Your task to perform on an android device: change keyboard looks Image 0: 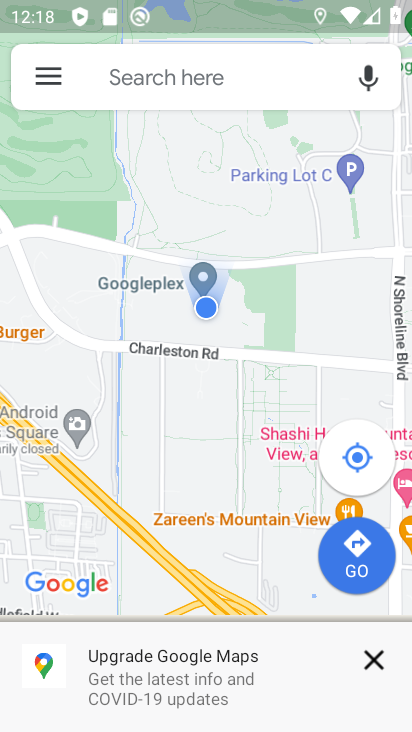
Step 0: press home button
Your task to perform on an android device: change keyboard looks Image 1: 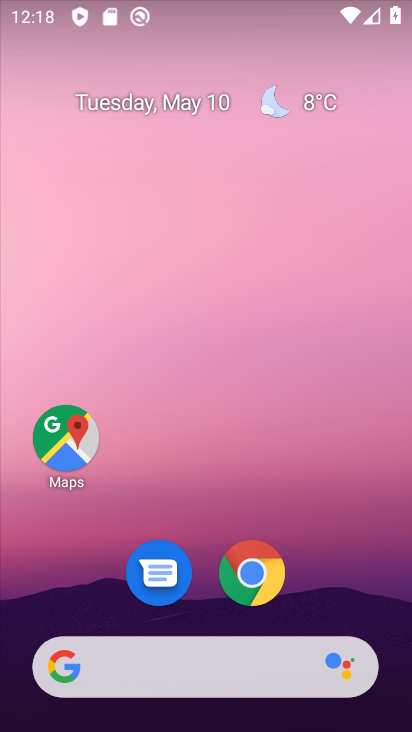
Step 1: drag from (197, 570) to (255, 133)
Your task to perform on an android device: change keyboard looks Image 2: 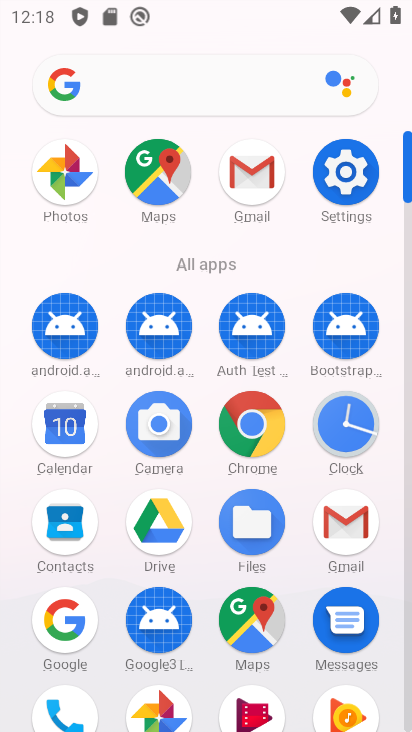
Step 2: click (358, 192)
Your task to perform on an android device: change keyboard looks Image 3: 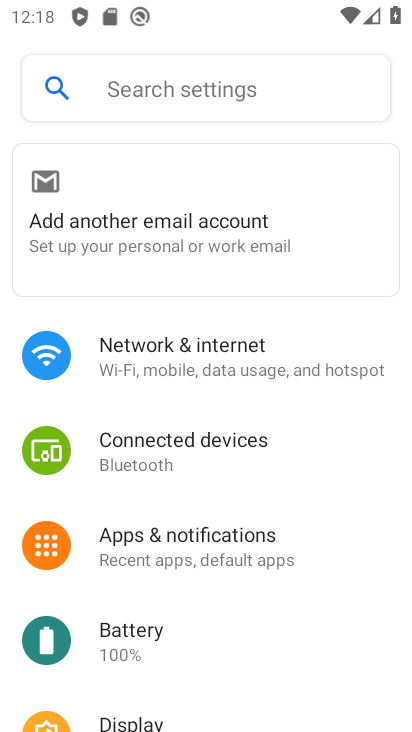
Step 3: drag from (195, 640) to (259, 208)
Your task to perform on an android device: change keyboard looks Image 4: 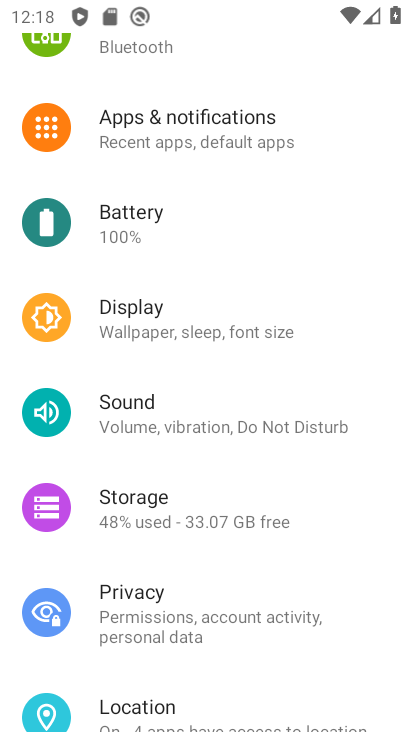
Step 4: drag from (174, 648) to (243, 264)
Your task to perform on an android device: change keyboard looks Image 5: 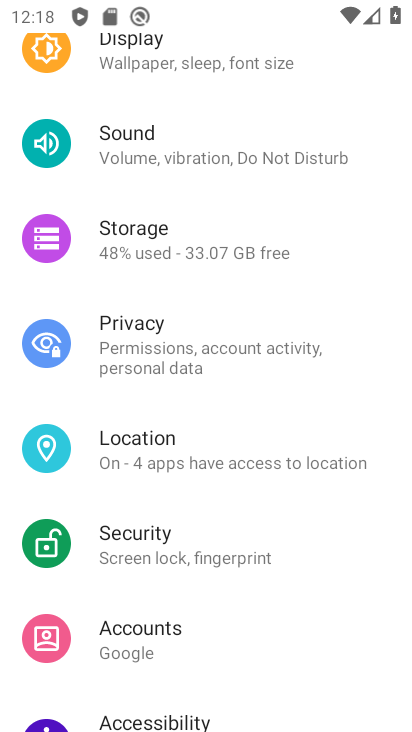
Step 5: drag from (195, 565) to (249, 315)
Your task to perform on an android device: change keyboard looks Image 6: 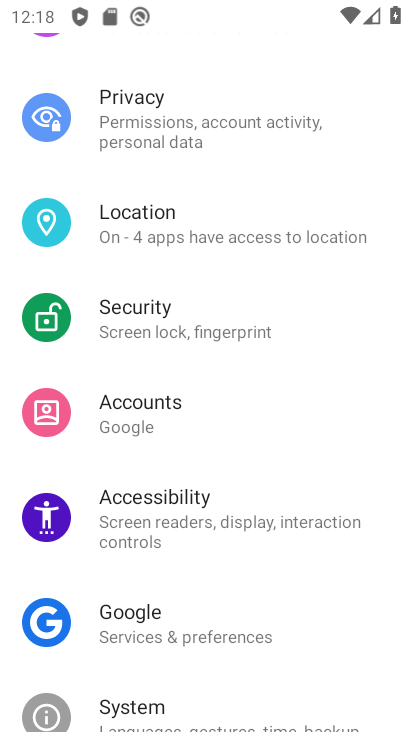
Step 6: click (204, 532)
Your task to perform on an android device: change keyboard looks Image 7: 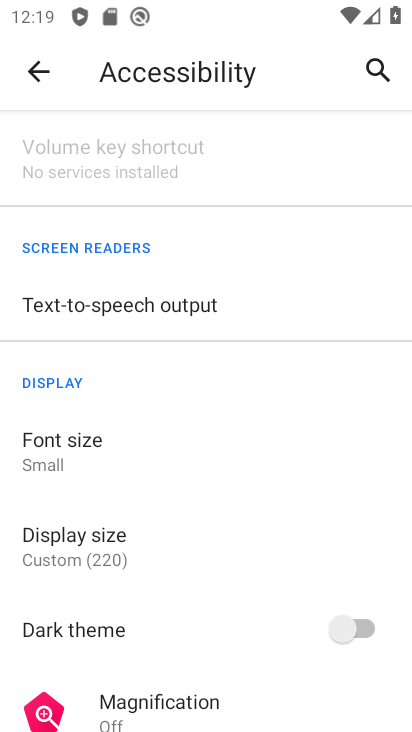
Step 7: click (37, 63)
Your task to perform on an android device: change keyboard looks Image 8: 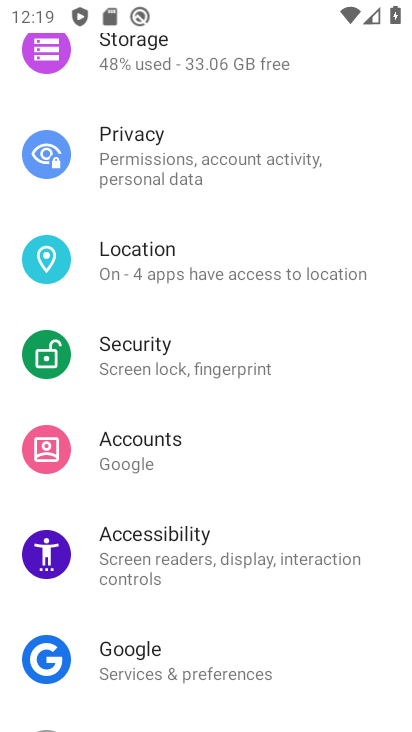
Step 8: drag from (130, 624) to (173, 101)
Your task to perform on an android device: change keyboard looks Image 9: 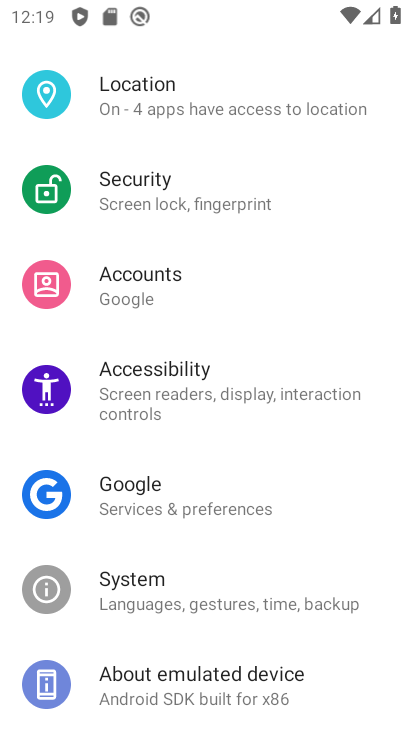
Step 9: click (163, 603)
Your task to perform on an android device: change keyboard looks Image 10: 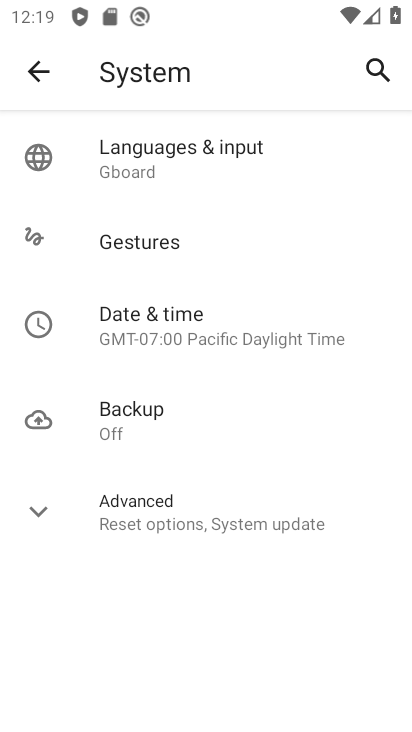
Step 10: click (163, 168)
Your task to perform on an android device: change keyboard looks Image 11: 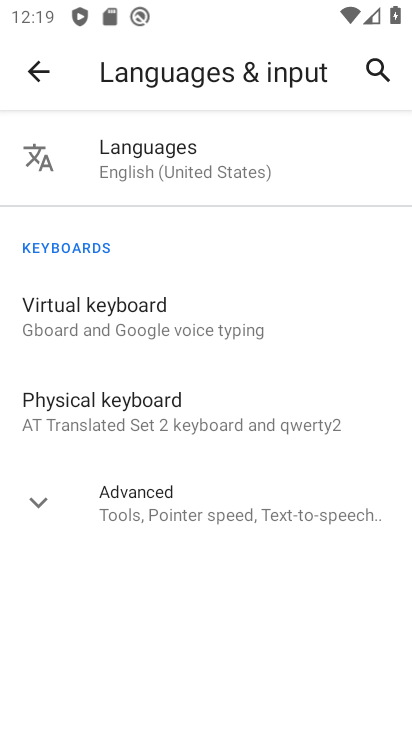
Step 11: click (139, 309)
Your task to perform on an android device: change keyboard looks Image 12: 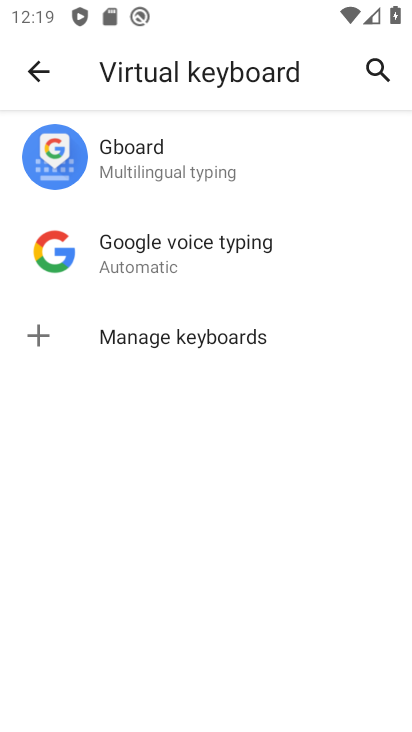
Step 12: click (182, 167)
Your task to perform on an android device: change keyboard looks Image 13: 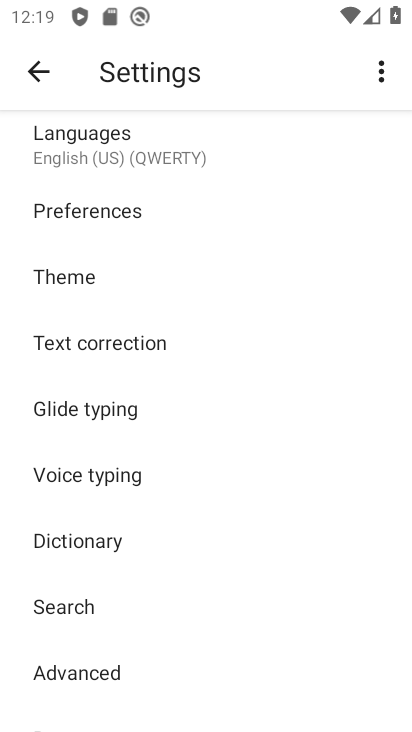
Step 13: click (111, 288)
Your task to perform on an android device: change keyboard looks Image 14: 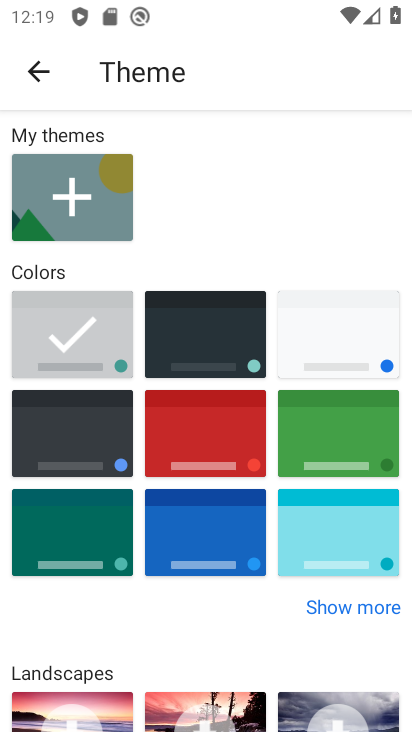
Step 14: click (321, 347)
Your task to perform on an android device: change keyboard looks Image 15: 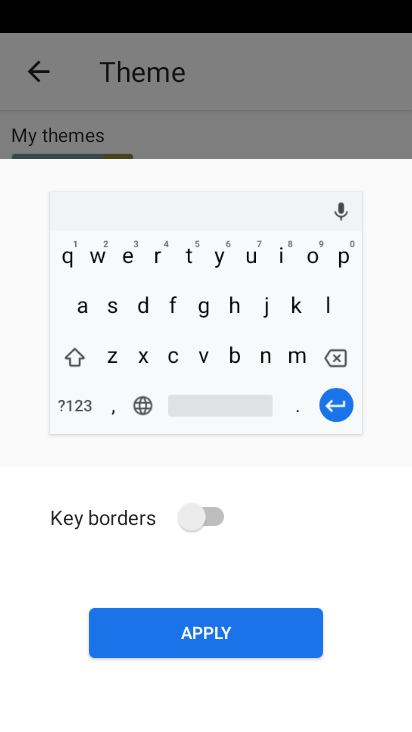
Step 15: click (220, 637)
Your task to perform on an android device: change keyboard looks Image 16: 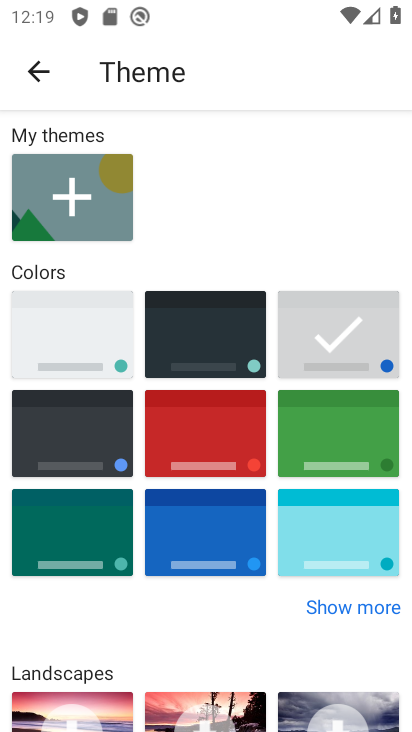
Step 16: task complete